Your task to perform on an android device: turn on sleep mode Image 0: 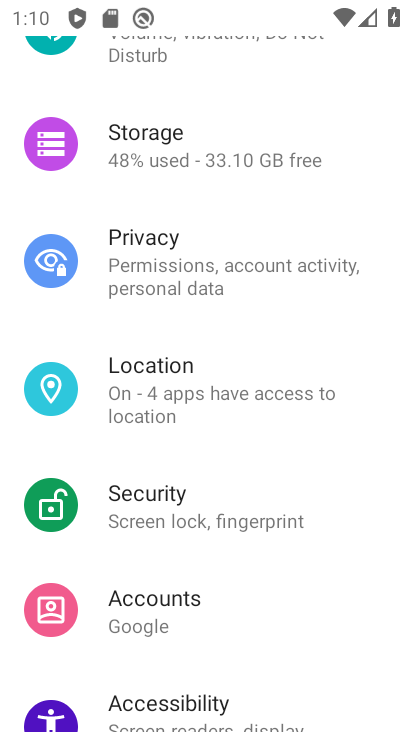
Step 0: drag from (203, 651) to (262, 228)
Your task to perform on an android device: turn on sleep mode Image 1: 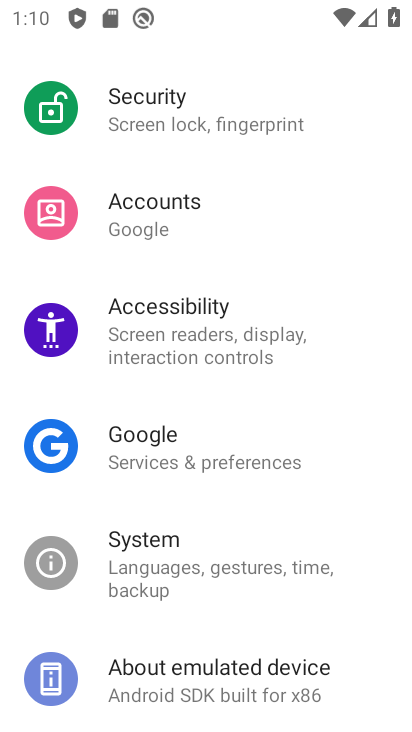
Step 1: task complete